Your task to perform on an android device: turn on wifi Image 0: 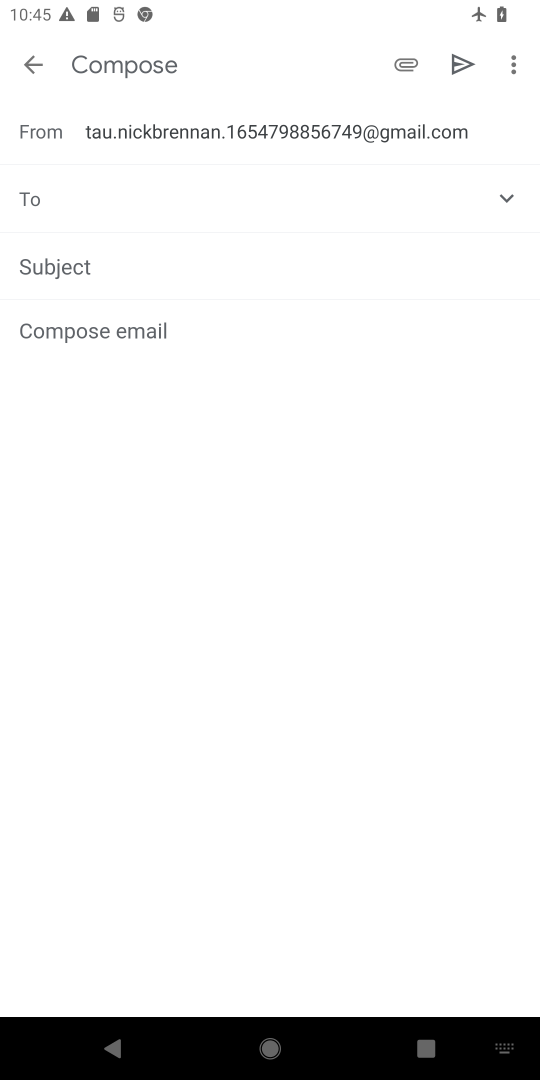
Step 0: press home button
Your task to perform on an android device: turn on wifi Image 1: 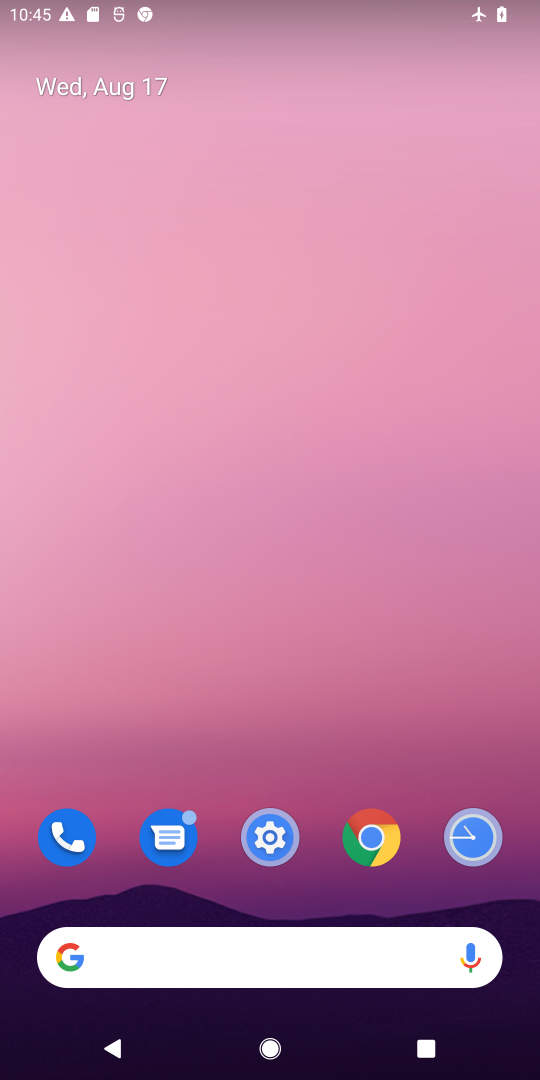
Step 1: click (271, 838)
Your task to perform on an android device: turn on wifi Image 2: 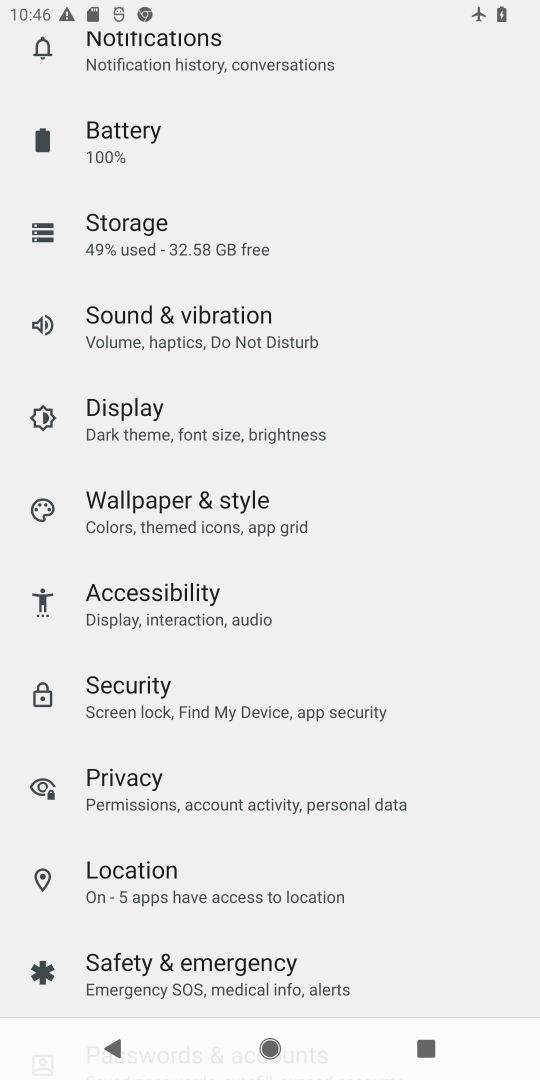
Step 2: drag from (280, 377) to (342, 653)
Your task to perform on an android device: turn on wifi Image 3: 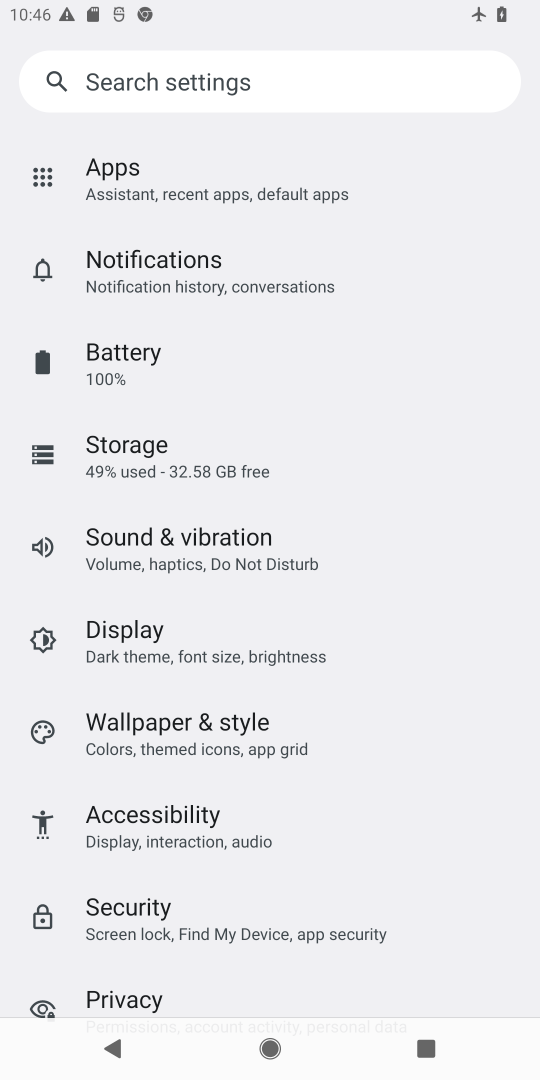
Step 3: drag from (289, 404) to (346, 597)
Your task to perform on an android device: turn on wifi Image 4: 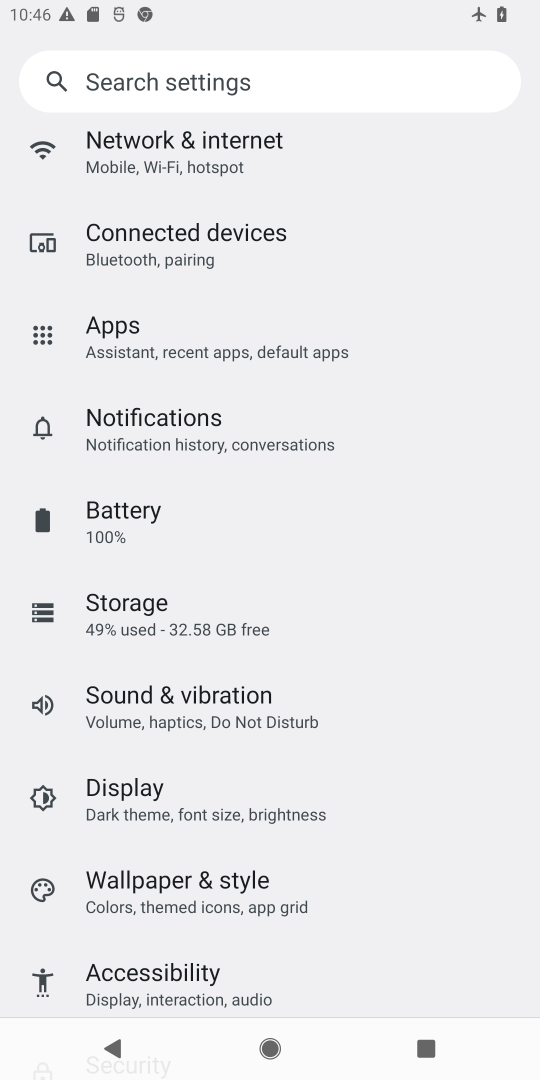
Step 4: click (205, 166)
Your task to perform on an android device: turn on wifi Image 5: 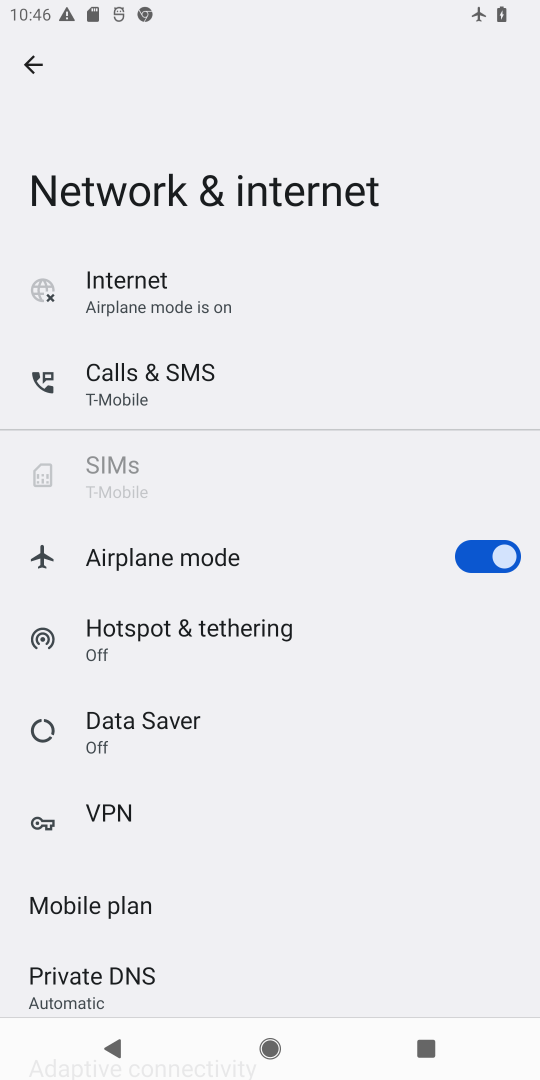
Step 5: click (189, 310)
Your task to perform on an android device: turn on wifi Image 6: 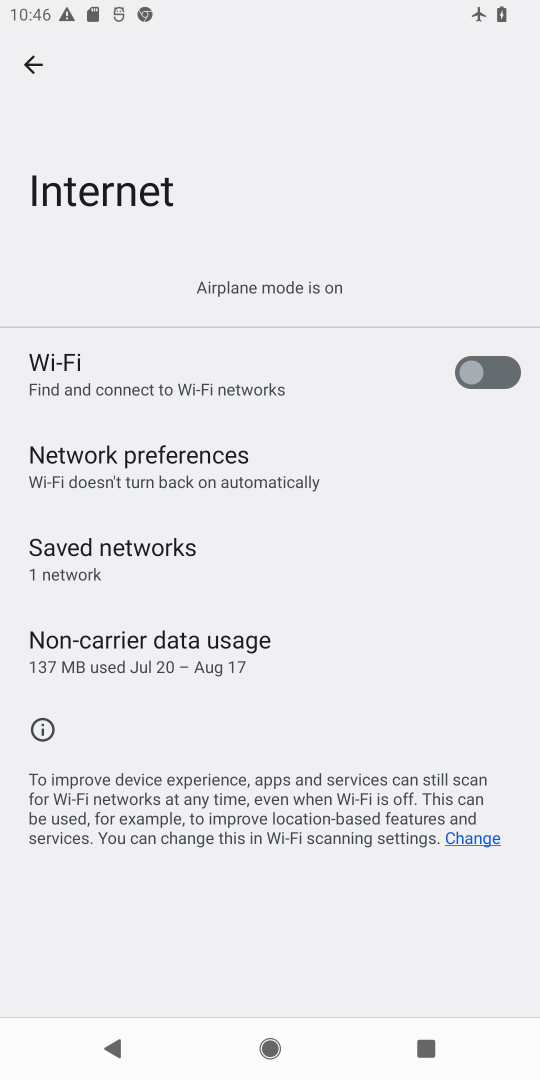
Step 6: click (478, 383)
Your task to perform on an android device: turn on wifi Image 7: 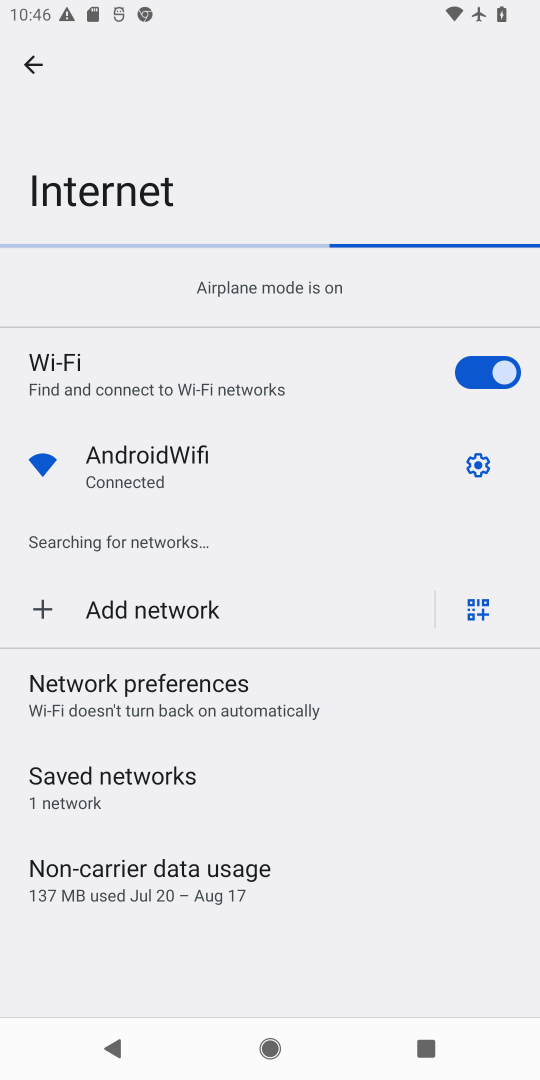
Step 7: task complete